Your task to perform on an android device: toggle airplane mode Image 0: 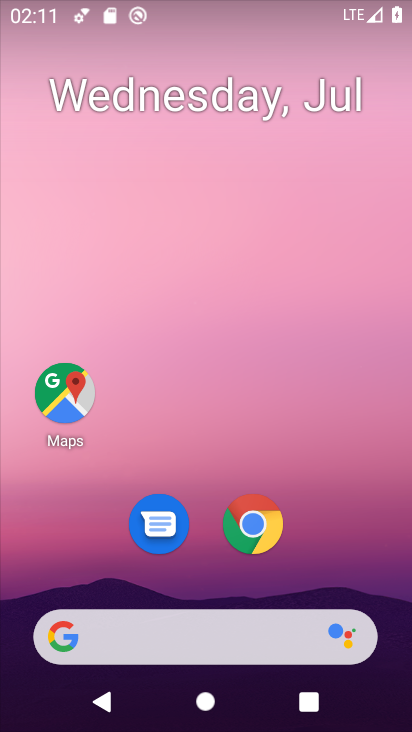
Step 0: drag from (350, 539) to (315, 18)
Your task to perform on an android device: toggle airplane mode Image 1: 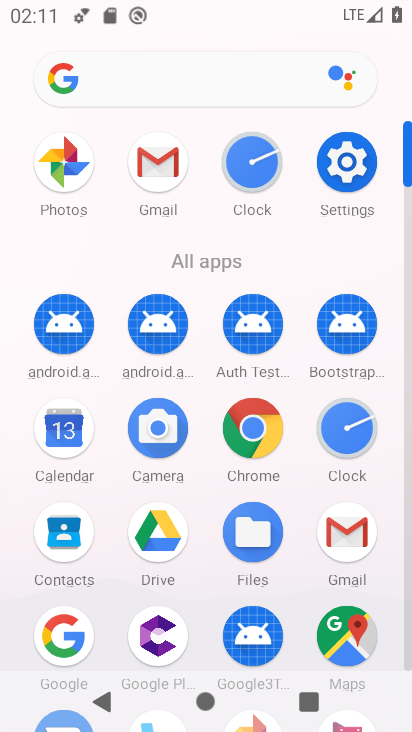
Step 1: click (338, 155)
Your task to perform on an android device: toggle airplane mode Image 2: 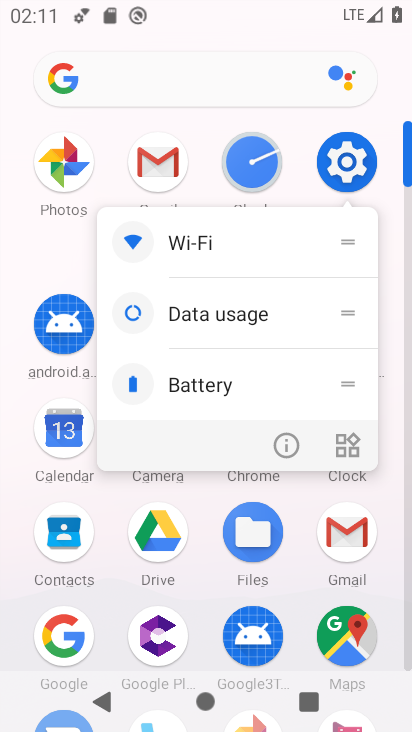
Step 2: click (338, 152)
Your task to perform on an android device: toggle airplane mode Image 3: 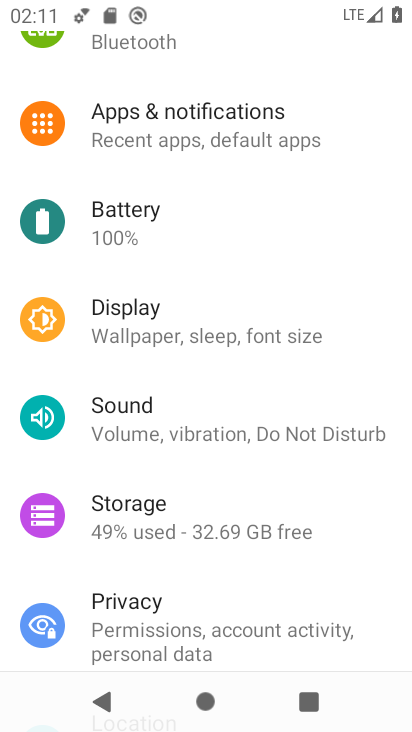
Step 3: drag from (235, 235) to (280, 633)
Your task to perform on an android device: toggle airplane mode Image 4: 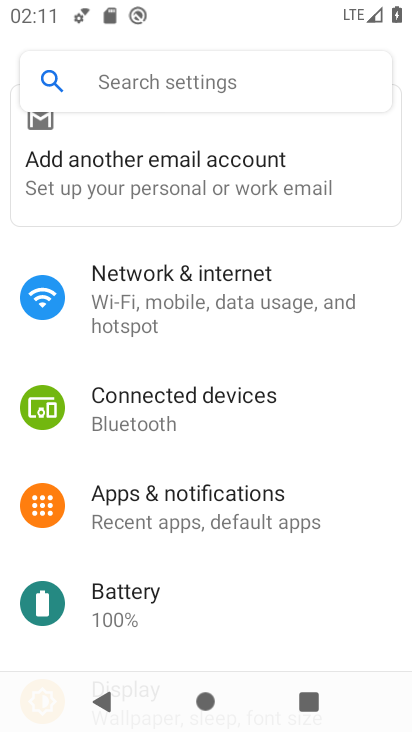
Step 4: click (249, 297)
Your task to perform on an android device: toggle airplane mode Image 5: 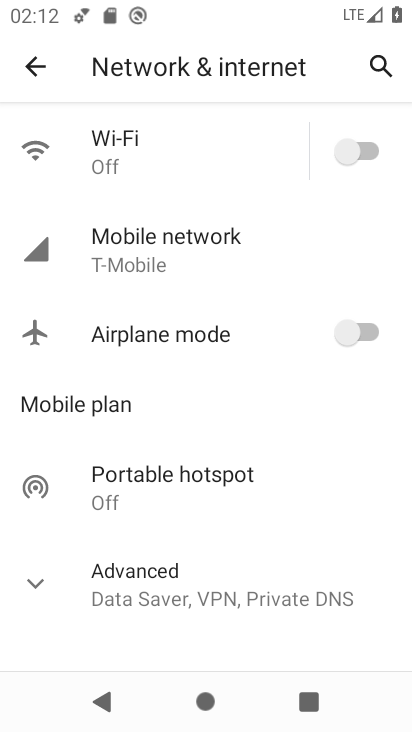
Step 5: click (355, 330)
Your task to perform on an android device: toggle airplane mode Image 6: 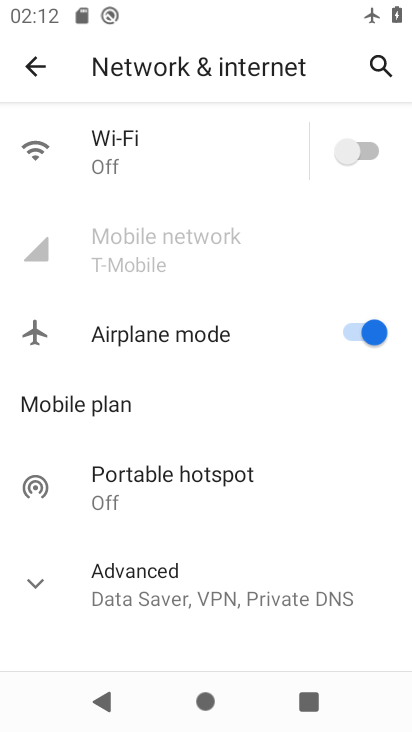
Step 6: task complete